Your task to perform on an android device: see tabs open on other devices in the chrome app Image 0: 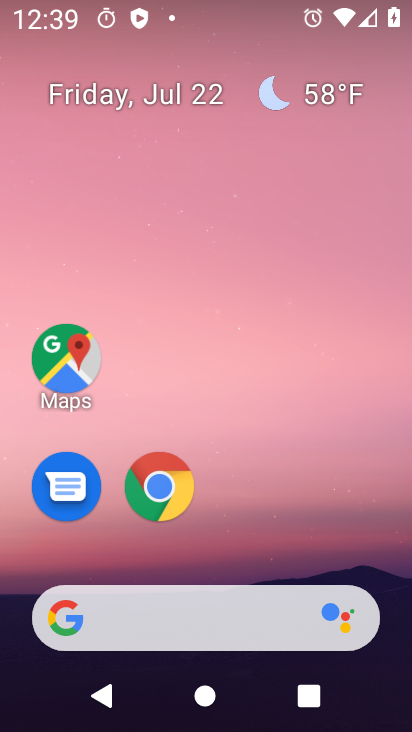
Step 0: press home button
Your task to perform on an android device: see tabs open on other devices in the chrome app Image 1: 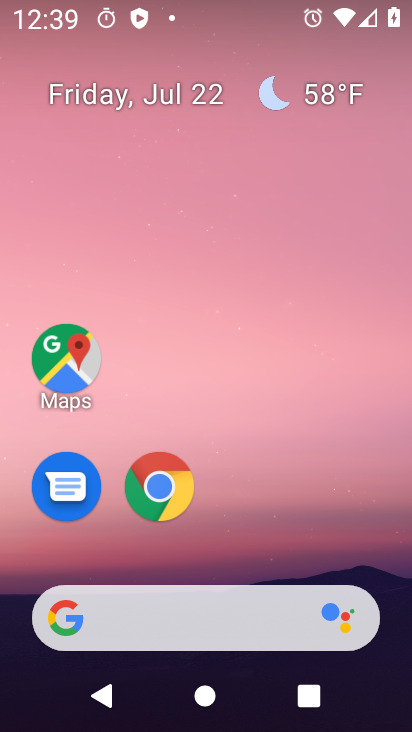
Step 1: drag from (340, 529) to (374, 89)
Your task to perform on an android device: see tabs open on other devices in the chrome app Image 2: 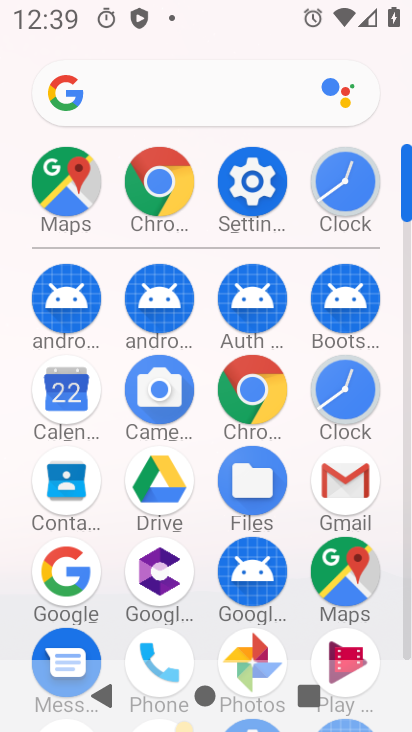
Step 2: click (170, 184)
Your task to perform on an android device: see tabs open on other devices in the chrome app Image 3: 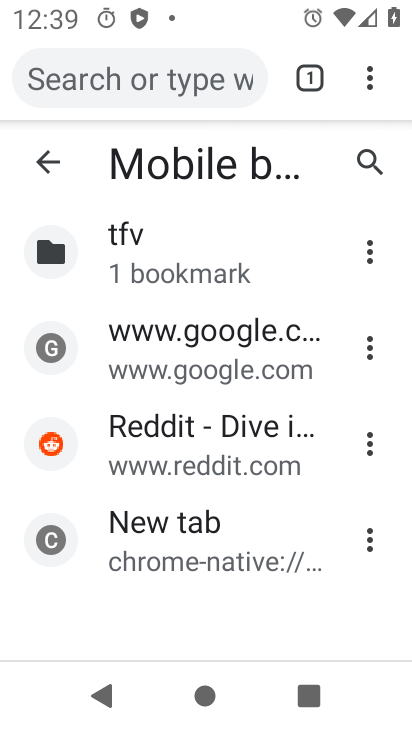
Step 3: click (368, 89)
Your task to perform on an android device: see tabs open on other devices in the chrome app Image 4: 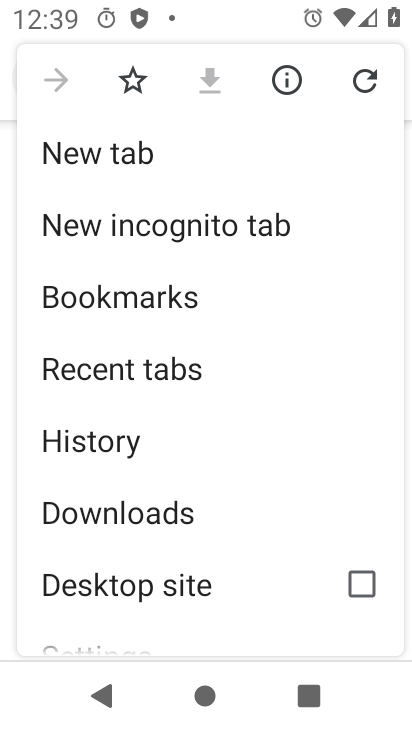
Step 4: click (164, 371)
Your task to perform on an android device: see tabs open on other devices in the chrome app Image 5: 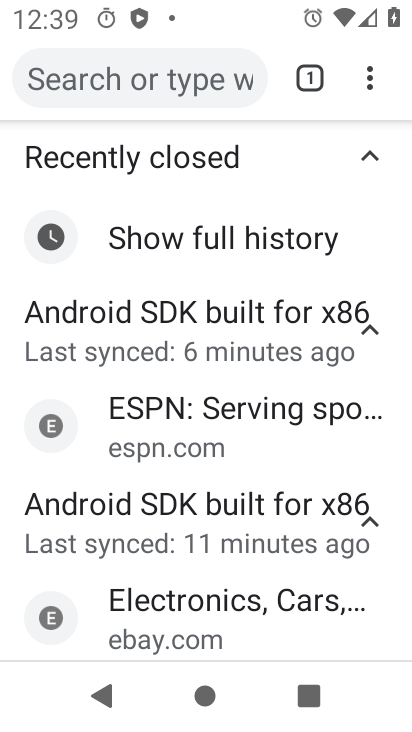
Step 5: click (306, 90)
Your task to perform on an android device: see tabs open on other devices in the chrome app Image 6: 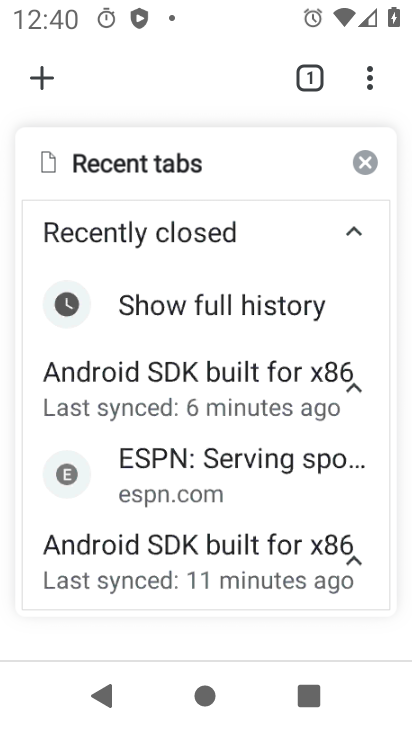
Step 6: task complete